Your task to perform on an android device: set the timer Image 0: 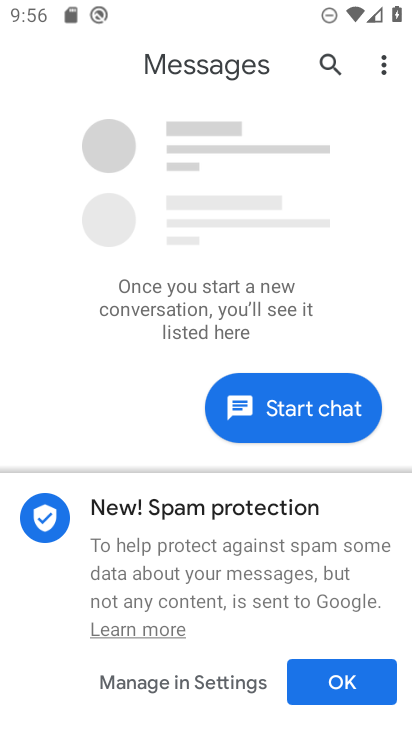
Step 0: press home button
Your task to perform on an android device: set the timer Image 1: 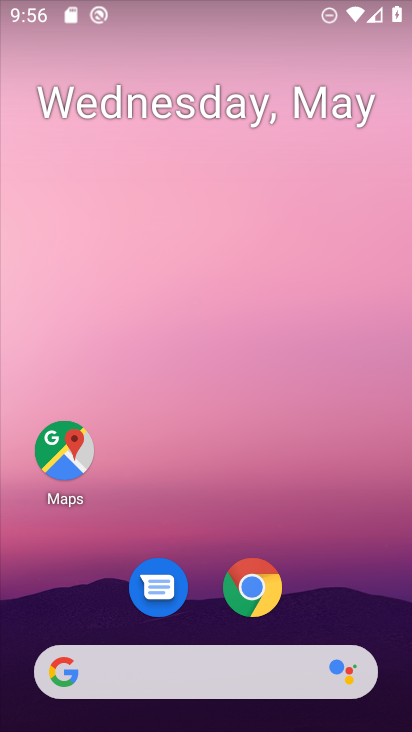
Step 1: drag from (214, 727) to (214, 184)
Your task to perform on an android device: set the timer Image 2: 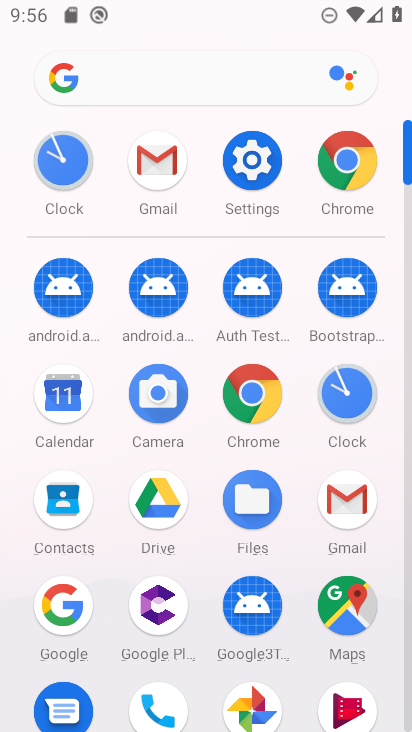
Step 2: click (351, 399)
Your task to perform on an android device: set the timer Image 3: 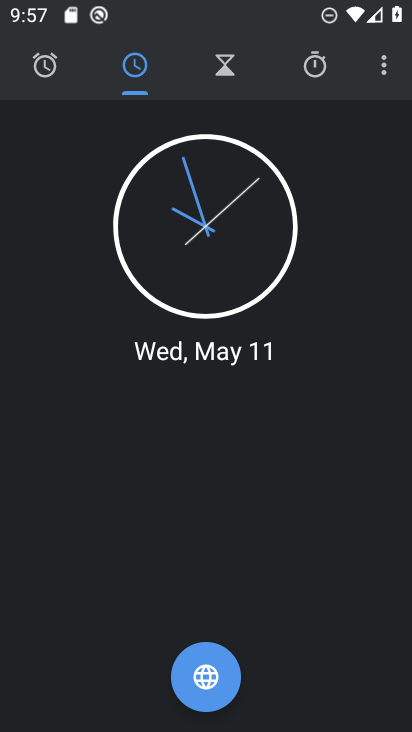
Step 3: click (226, 65)
Your task to perform on an android device: set the timer Image 4: 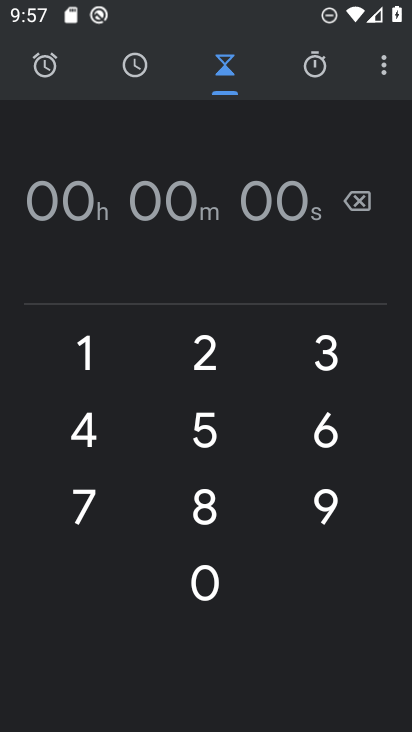
Step 4: click (200, 350)
Your task to perform on an android device: set the timer Image 5: 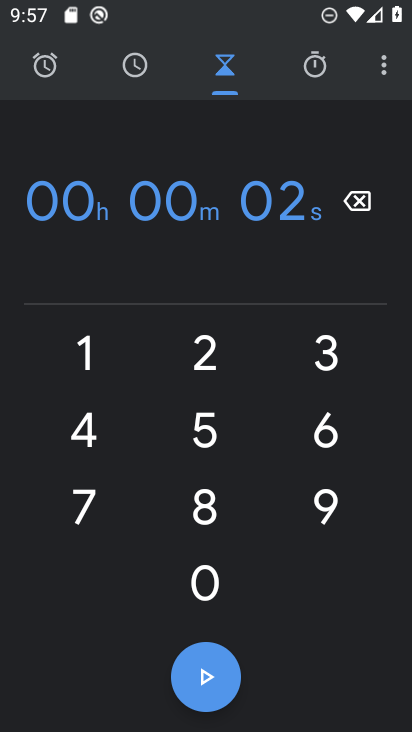
Step 5: click (81, 353)
Your task to perform on an android device: set the timer Image 6: 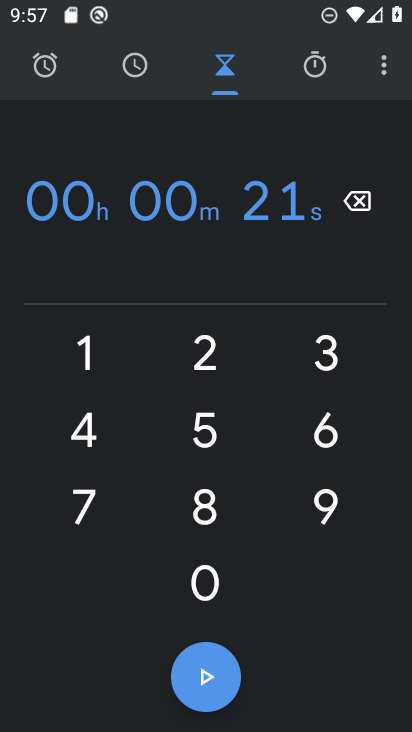
Step 6: click (88, 435)
Your task to perform on an android device: set the timer Image 7: 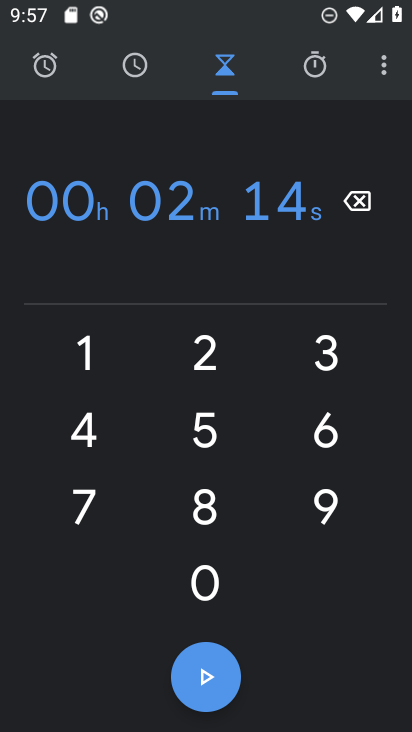
Step 7: click (238, 497)
Your task to perform on an android device: set the timer Image 8: 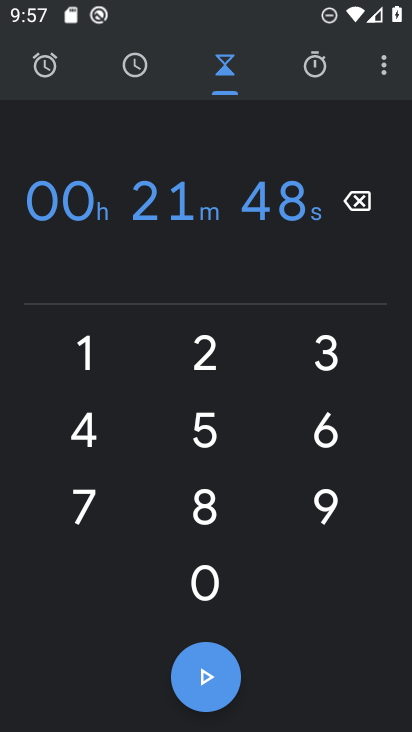
Step 8: click (211, 681)
Your task to perform on an android device: set the timer Image 9: 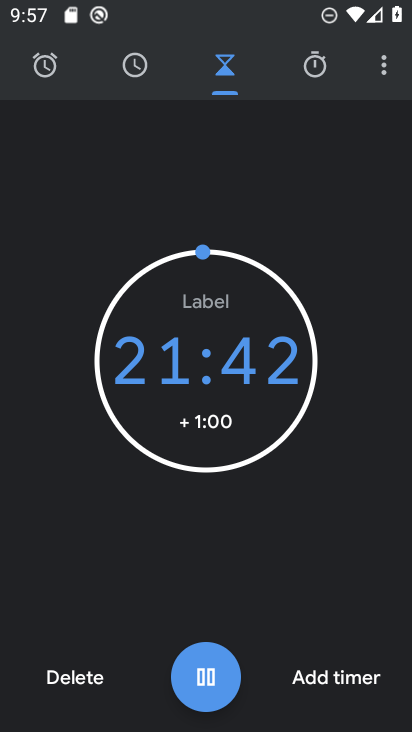
Step 9: task complete